Your task to perform on an android device: Check the news Image 0: 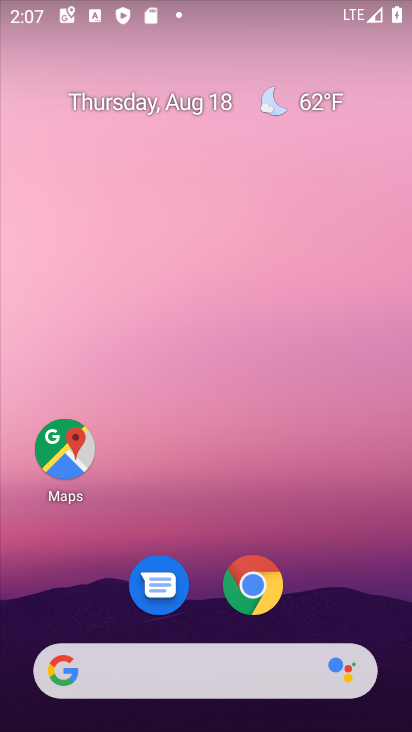
Step 0: click (155, 666)
Your task to perform on an android device: Check the news Image 1: 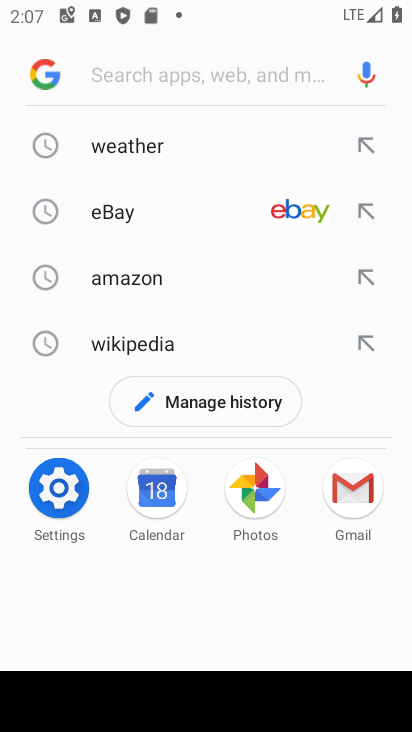
Step 1: type "news"
Your task to perform on an android device: Check the news Image 2: 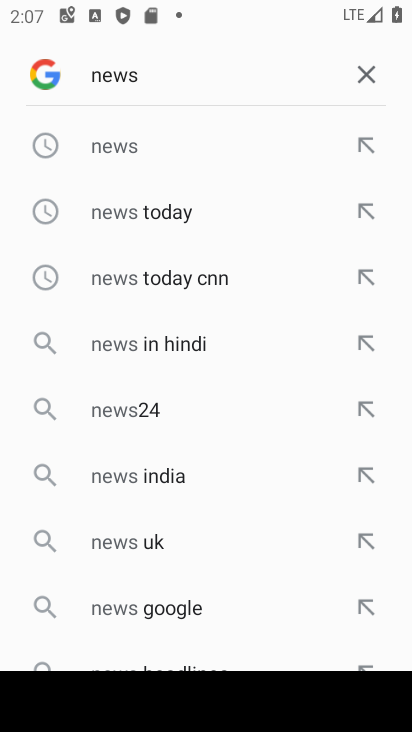
Step 2: click (132, 147)
Your task to perform on an android device: Check the news Image 3: 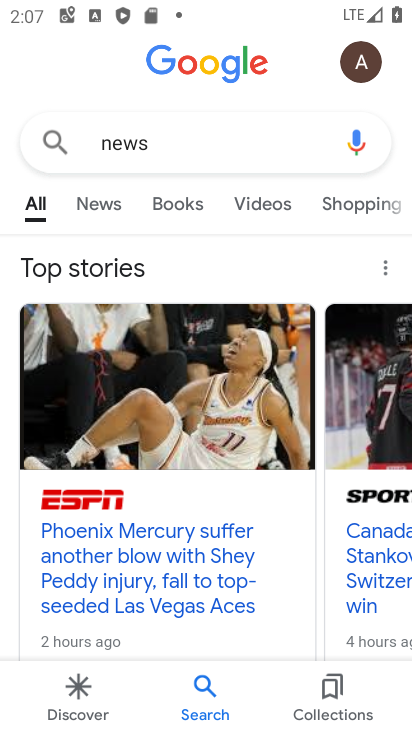
Step 3: task complete